Your task to perform on an android device: Open Youtube and go to the subscriptions tab Image 0: 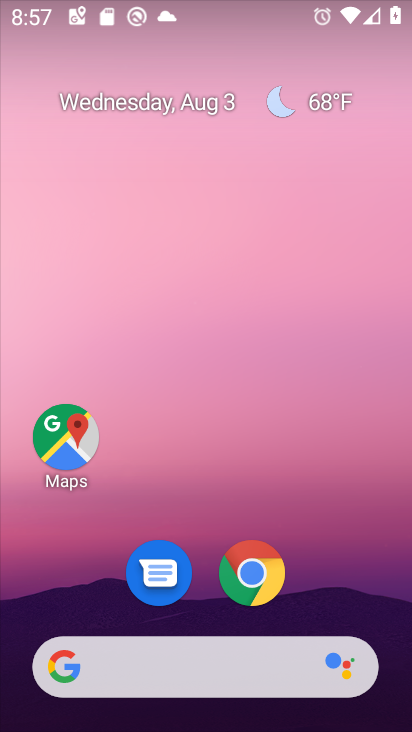
Step 0: drag from (337, 615) to (351, 16)
Your task to perform on an android device: Open Youtube and go to the subscriptions tab Image 1: 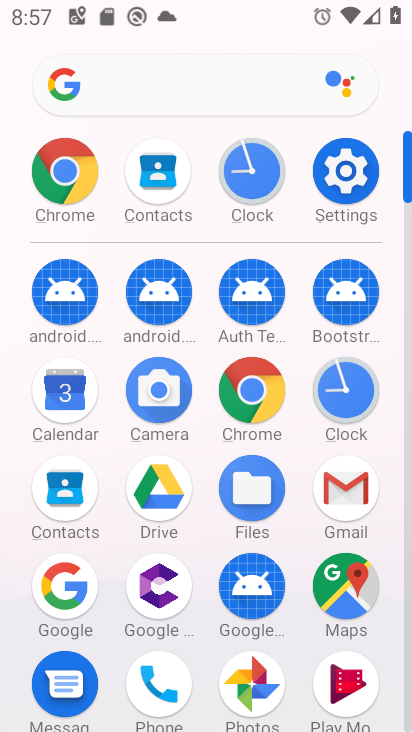
Step 1: click (411, 597)
Your task to perform on an android device: Open Youtube and go to the subscriptions tab Image 2: 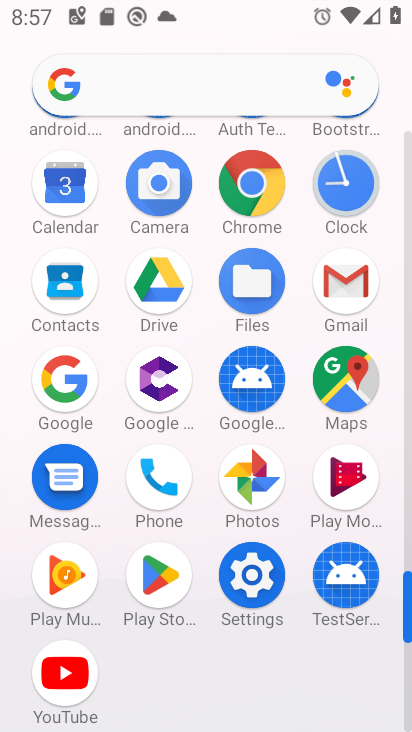
Step 2: click (66, 677)
Your task to perform on an android device: Open Youtube and go to the subscriptions tab Image 3: 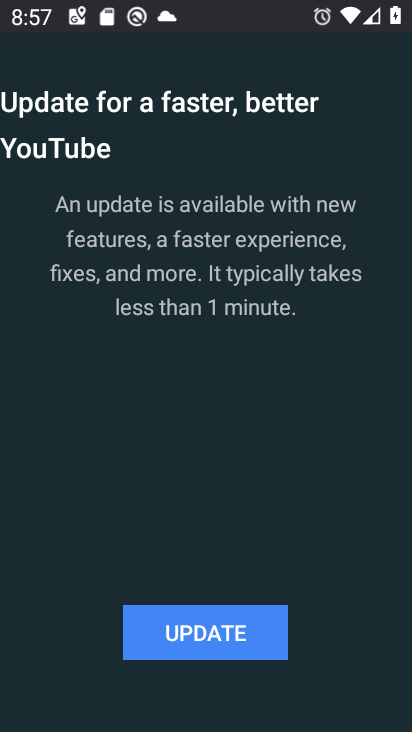
Step 3: click (209, 618)
Your task to perform on an android device: Open Youtube and go to the subscriptions tab Image 4: 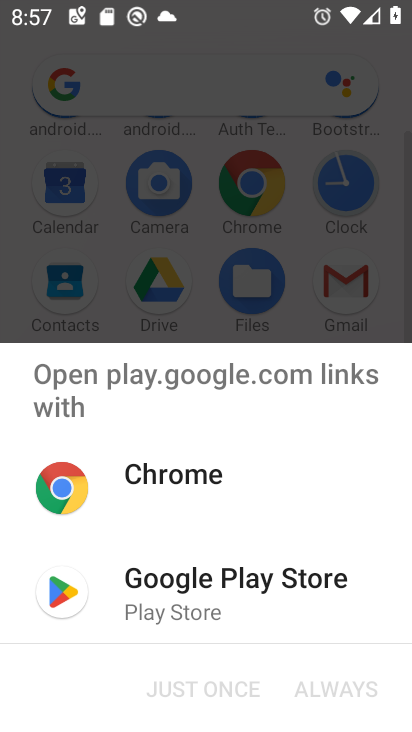
Step 4: click (209, 593)
Your task to perform on an android device: Open Youtube and go to the subscriptions tab Image 5: 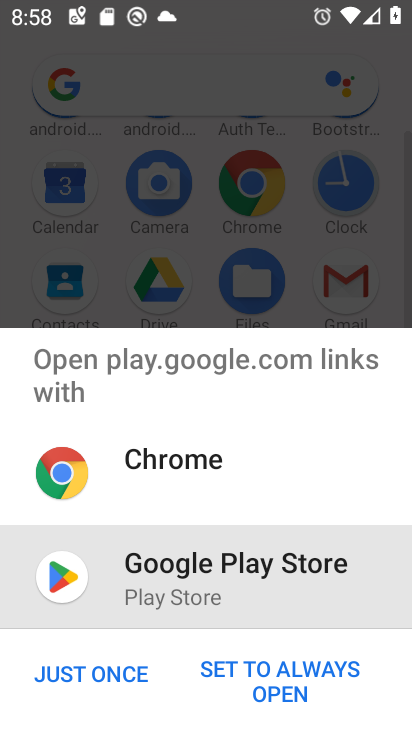
Step 5: click (137, 678)
Your task to perform on an android device: Open Youtube and go to the subscriptions tab Image 6: 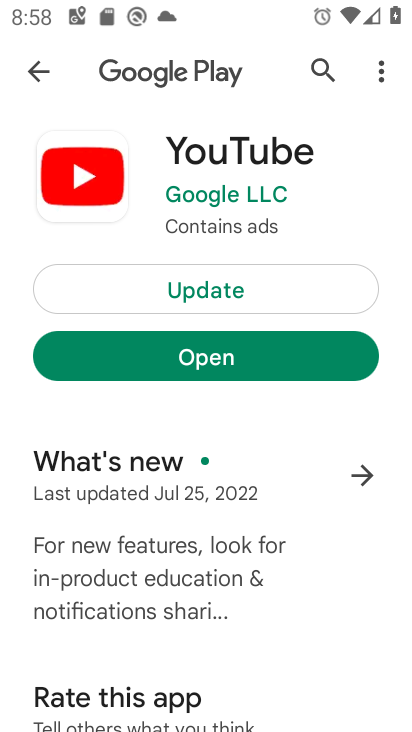
Step 6: click (219, 297)
Your task to perform on an android device: Open Youtube and go to the subscriptions tab Image 7: 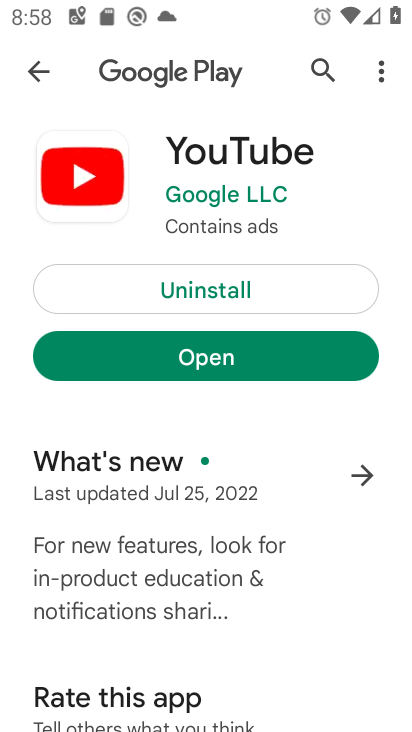
Step 7: click (220, 361)
Your task to perform on an android device: Open Youtube and go to the subscriptions tab Image 8: 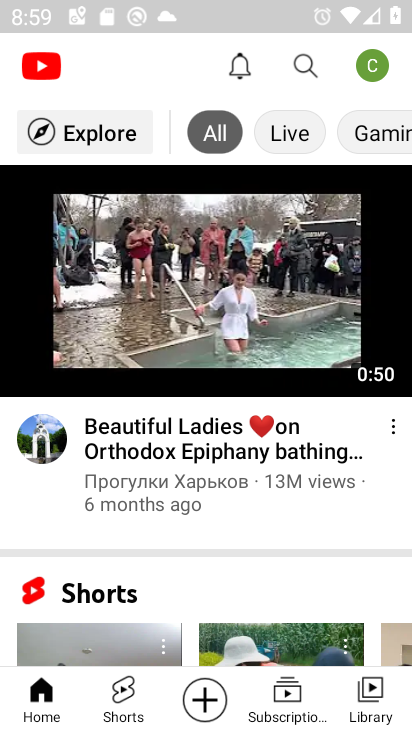
Step 8: click (280, 713)
Your task to perform on an android device: Open Youtube and go to the subscriptions tab Image 9: 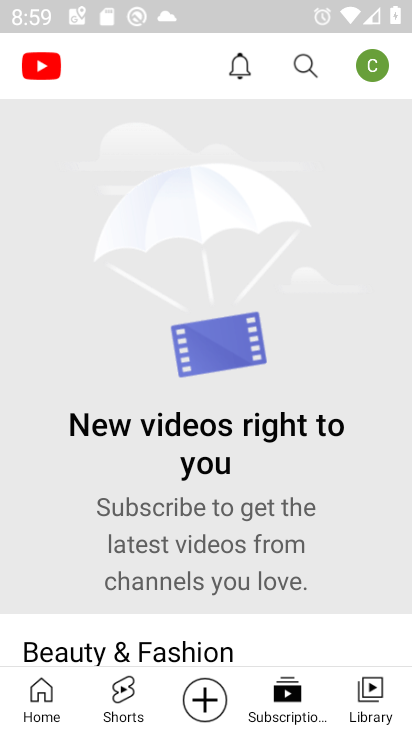
Step 9: task complete